Your task to perform on an android device: Open battery settings Image 0: 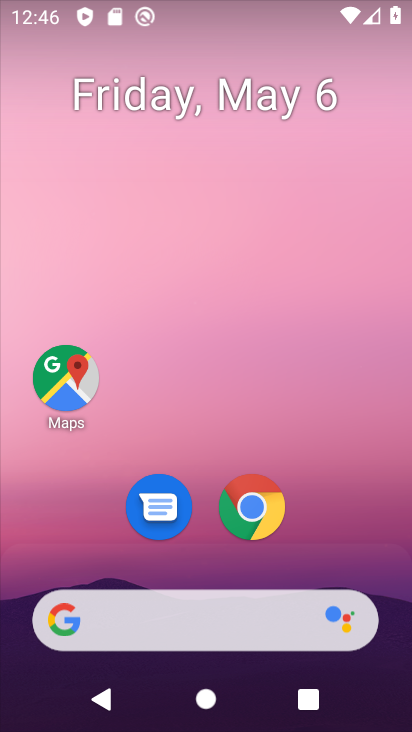
Step 0: drag from (121, 593) to (247, 94)
Your task to perform on an android device: Open battery settings Image 1: 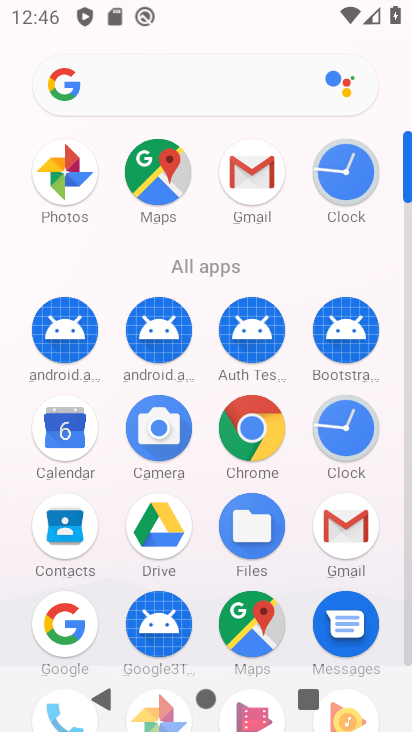
Step 1: drag from (137, 652) to (298, 170)
Your task to perform on an android device: Open battery settings Image 2: 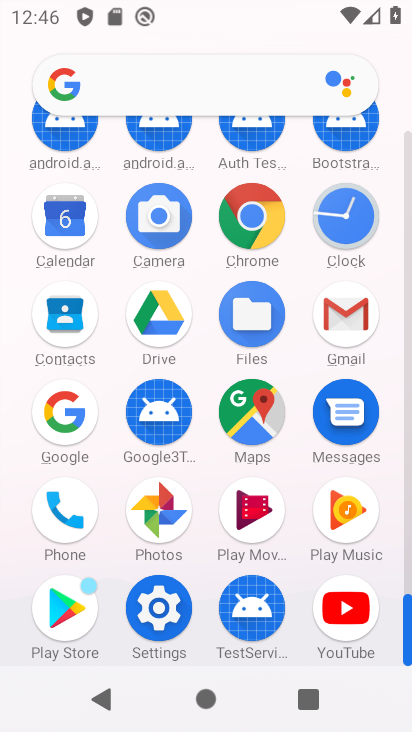
Step 2: click (154, 668)
Your task to perform on an android device: Open battery settings Image 3: 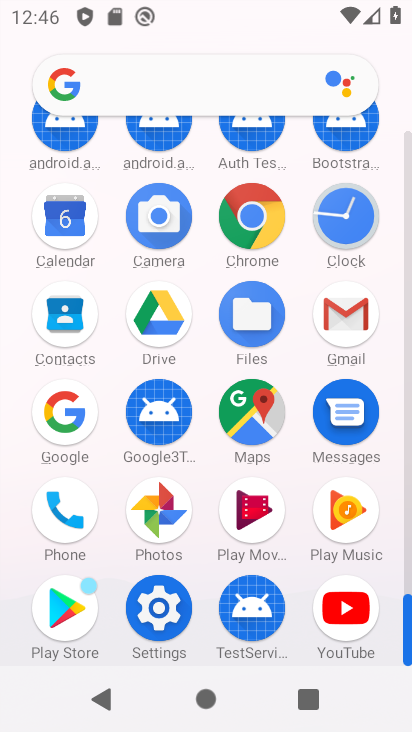
Step 3: click (162, 612)
Your task to perform on an android device: Open battery settings Image 4: 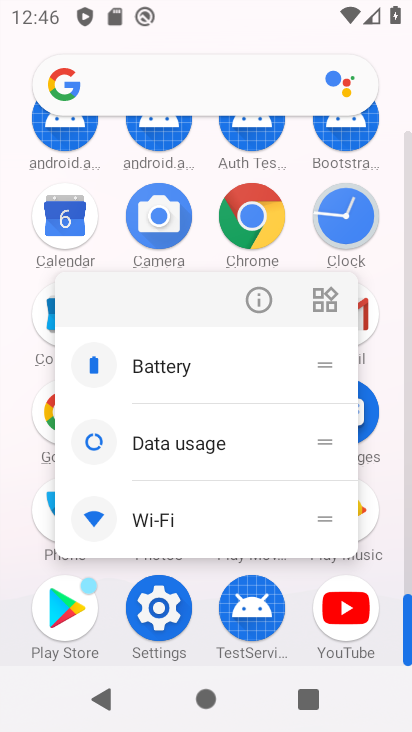
Step 4: click (151, 607)
Your task to perform on an android device: Open battery settings Image 5: 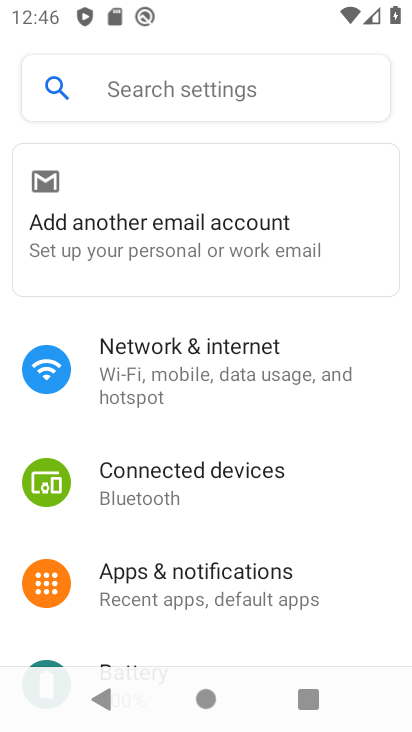
Step 5: drag from (149, 608) to (299, 191)
Your task to perform on an android device: Open battery settings Image 6: 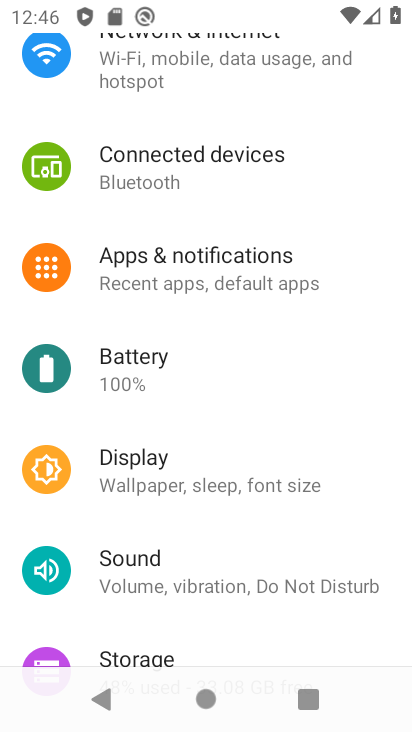
Step 6: click (179, 395)
Your task to perform on an android device: Open battery settings Image 7: 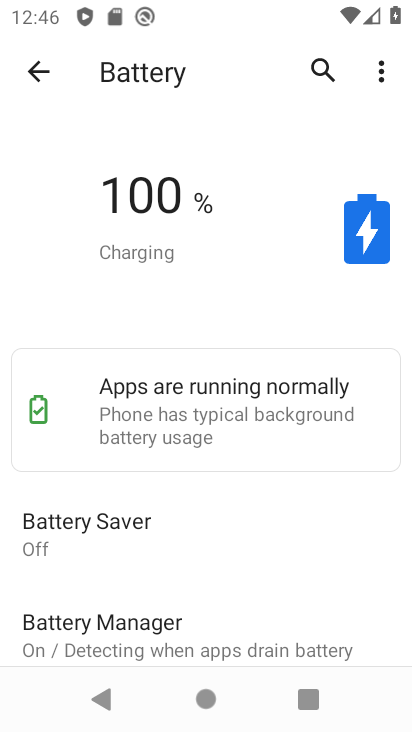
Step 7: task complete